Your task to perform on an android device: Go to display settings Image 0: 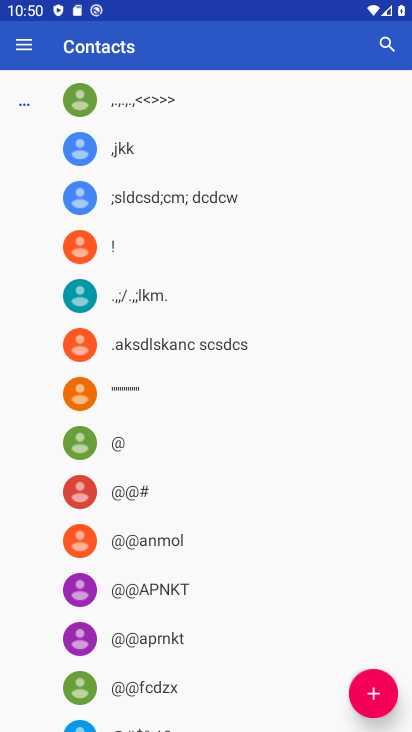
Step 0: press home button
Your task to perform on an android device: Go to display settings Image 1: 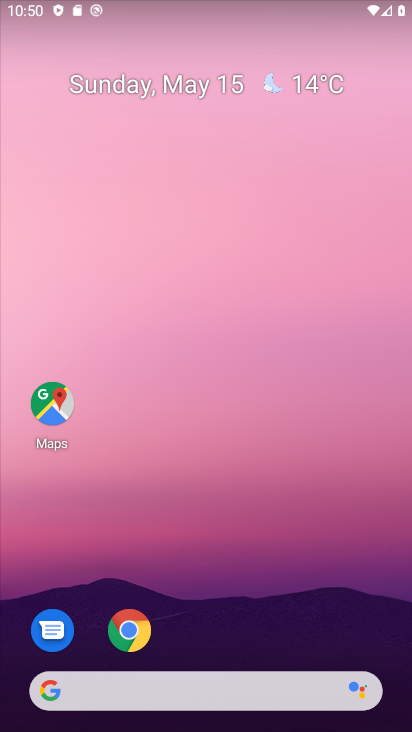
Step 1: drag from (63, 530) to (270, 104)
Your task to perform on an android device: Go to display settings Image 2: 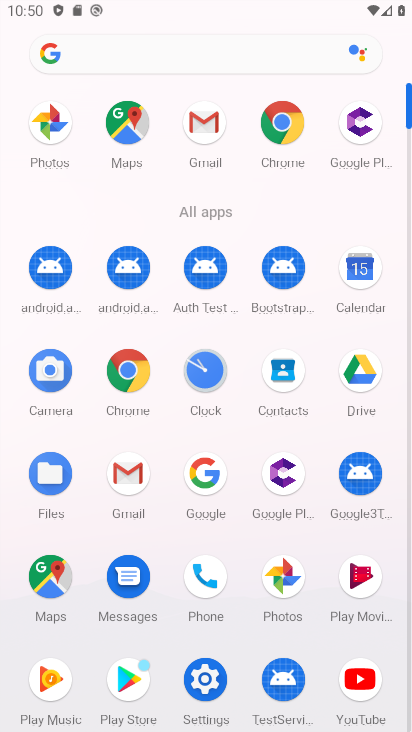
Step 2: click (199, 678)
Your task to perform on an android device: Go to display settings Image 3: 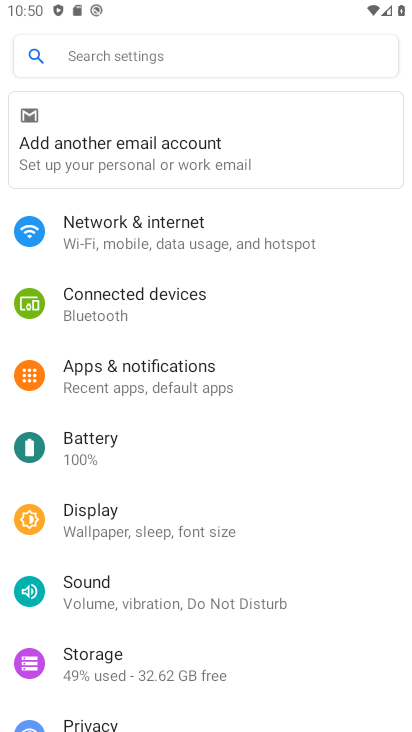
Step 3: click (145, 514)
Your task to perform on an android device: Go to display settings Image 4: 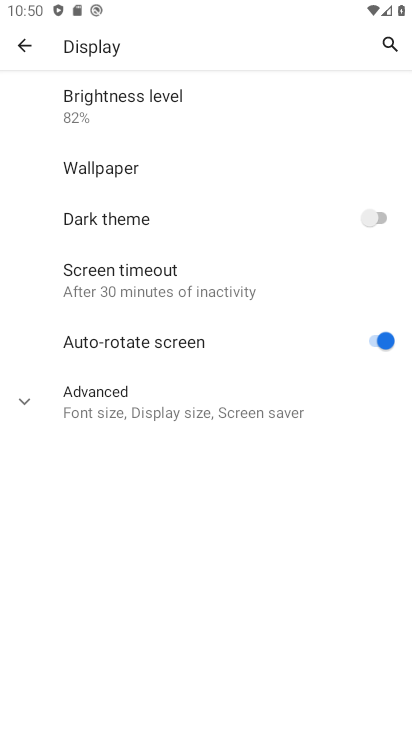
Step 4: task complete